Your task to perform on an android device: Go to Google maps Image 0: 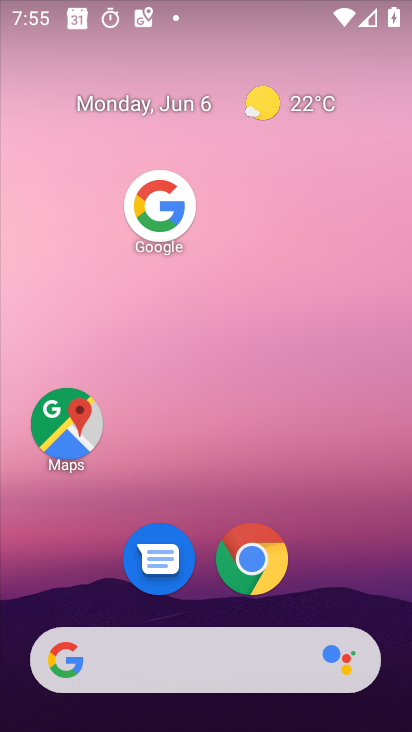
Step 0: drag from (207, 577) to (259, 277)
Your task to perform on an android device: Go to Google maps Image 1: 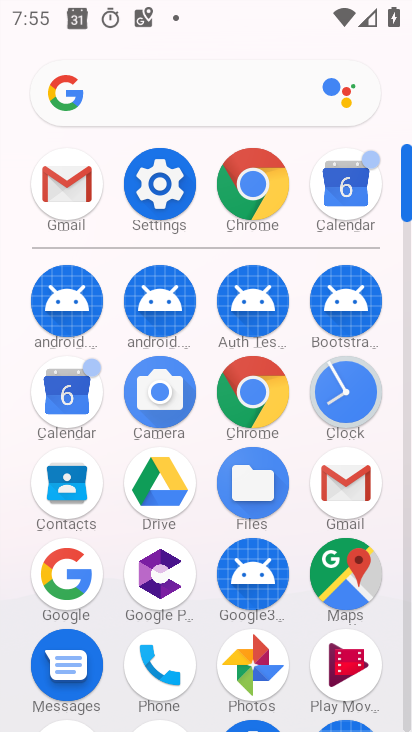
Step 1: click (351, 574)
Your task to perform on an android device: Go to Google maps Image 2: 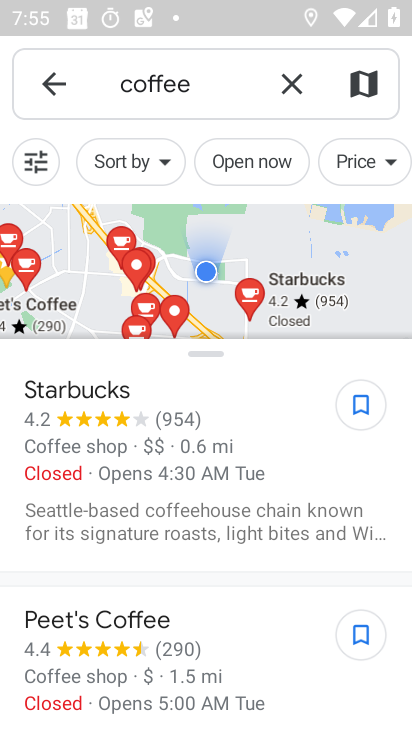
Step 2: task complete